Your task to perform on an android device: Open accessibility settings Image 0: 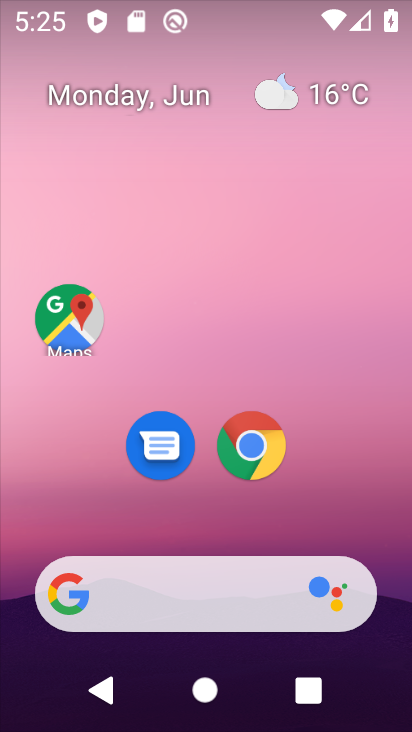
Step 0: drag from (348, 525) to (295, 45)
Your task to perform on an android device: Open accessibility settings Image 1: 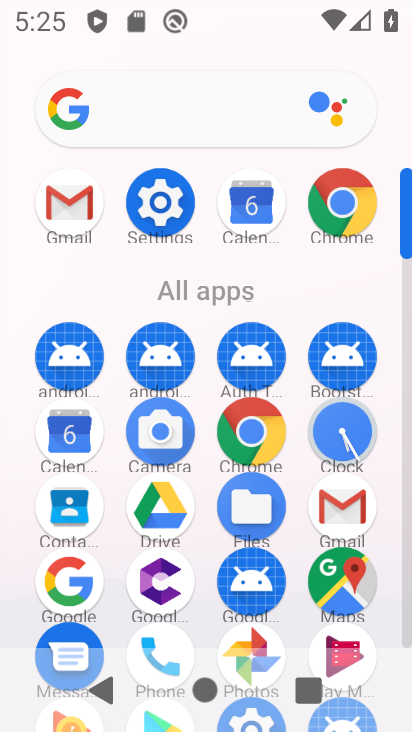
Step 1: click (158, 203)
Your task to perform on an android device: Open accessibility settings Image 2: 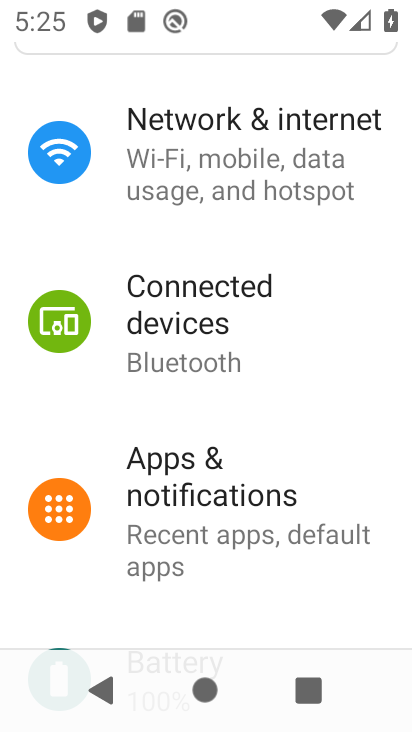
Step 2: drag from (257, 594) to (376, 65)
Your task to perform on an android device: Open accessibility settings Image 3: 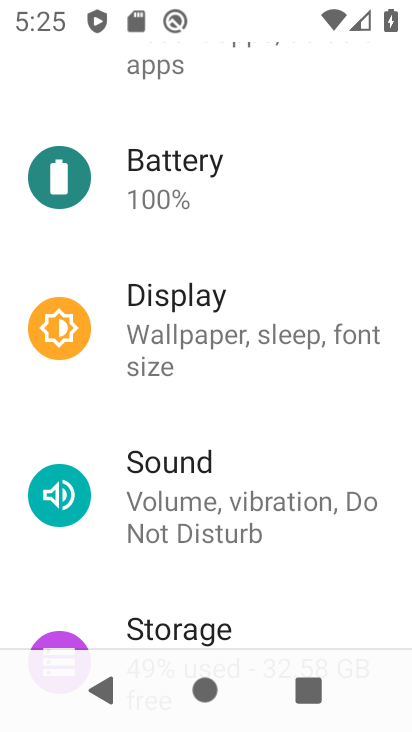
Step 3: drag from (254, 594) to (379, 71)
Your task to perform on an android device: Open accessibility settings Image 4: 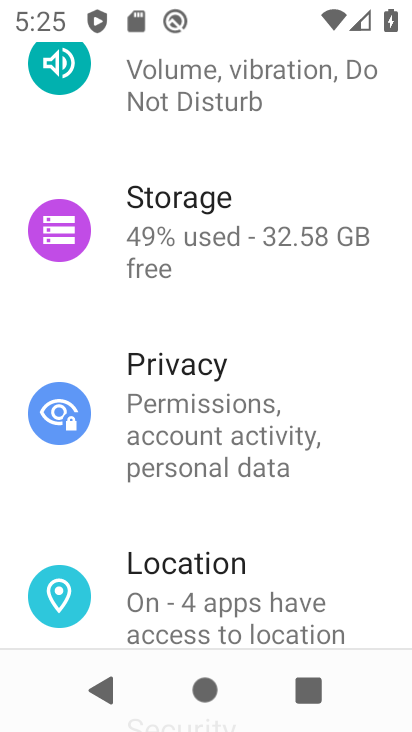
Step 4: drag from (277, 557) to (368, 107)
Your task to perform on an android device: Open accessibility settings Image 5: 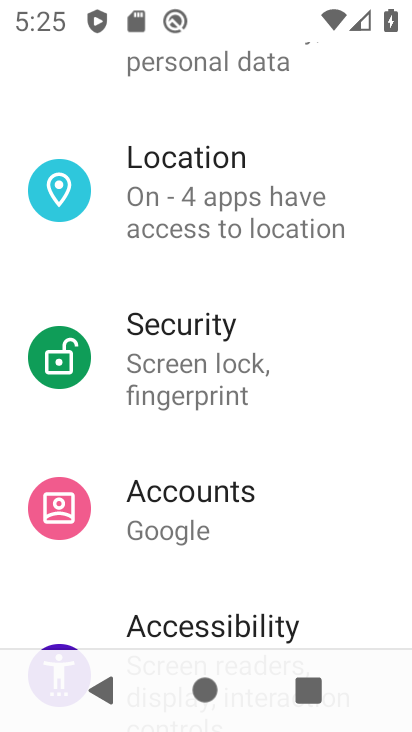
Step 5: drag from (252, 542) to (351, 234)
Your task to perform on an android device: Open accessibility settings Image 6: 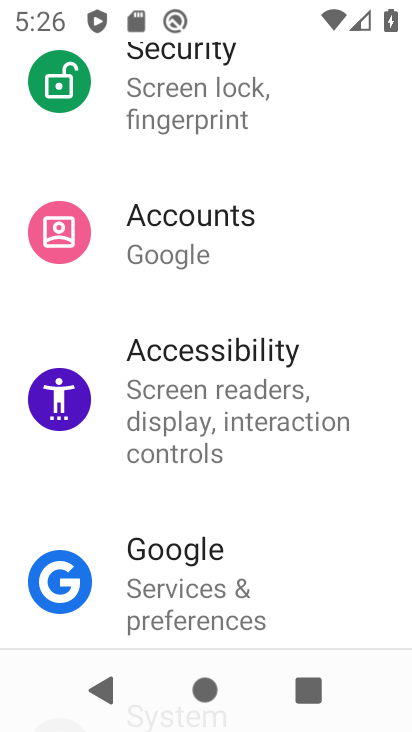
Step 6: click (242, 346)
Your task to perform on an android device: Open accessibility settings Image 7: 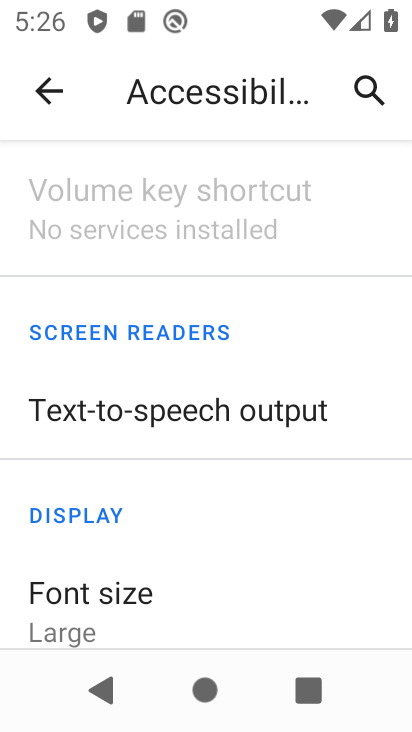
Step 7: task complete